Your task to perform on an android device: Go to settings Image 0: 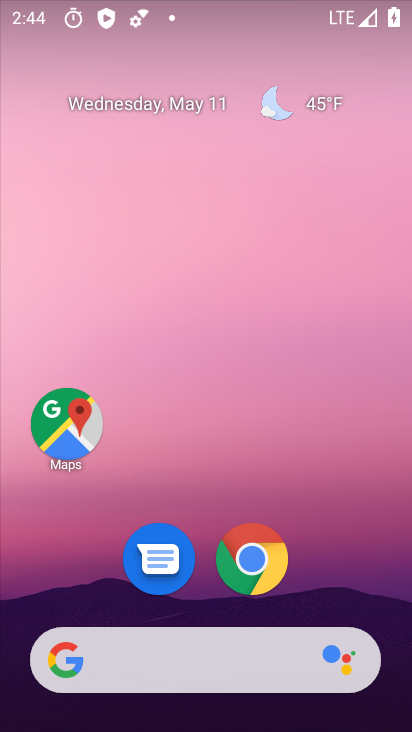
Step 0: drag from (323, 523) to (168, 12)
Your task to perform on an android device: Go to settings Image 1: 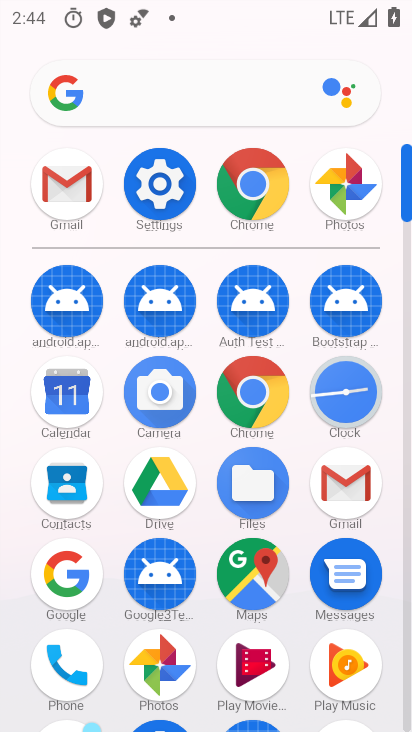
Step 1: click (163, 185)
Your task to perform on an android device: Go to settings Image 2: 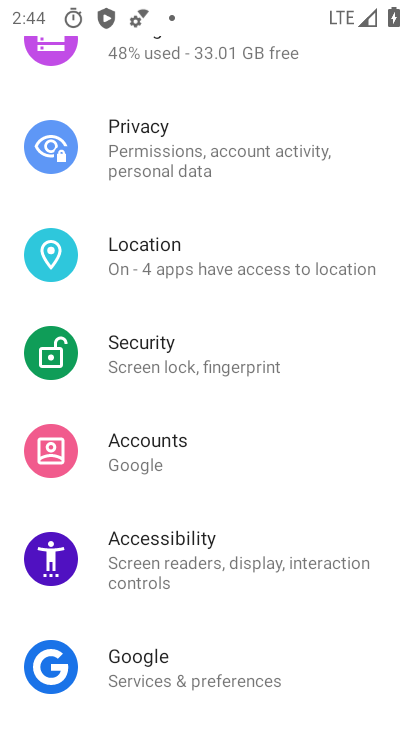
Step 2: task complete